Your task to perform on an android device: Open battery settings Image 0: 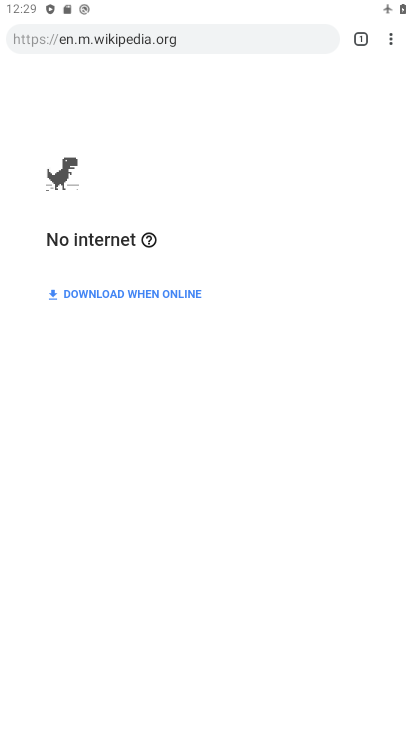
Step 0: press home button
Your task to perform on an android device: Open battery settings Image 1: 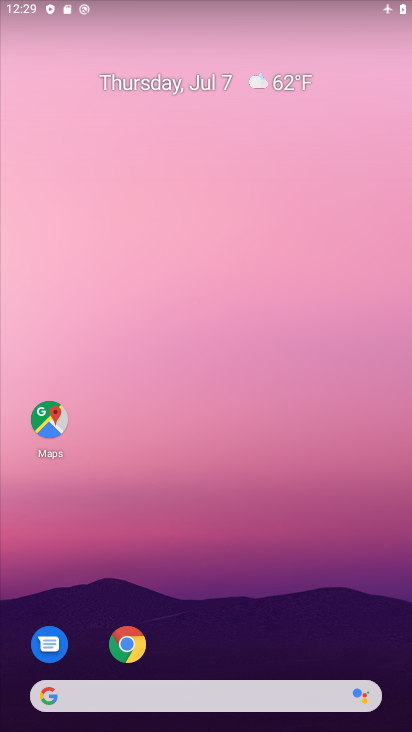
Step 1: drag from (269, 632) to (211, 114)
Your task to perform on an android device: Open battery settings Image 2: 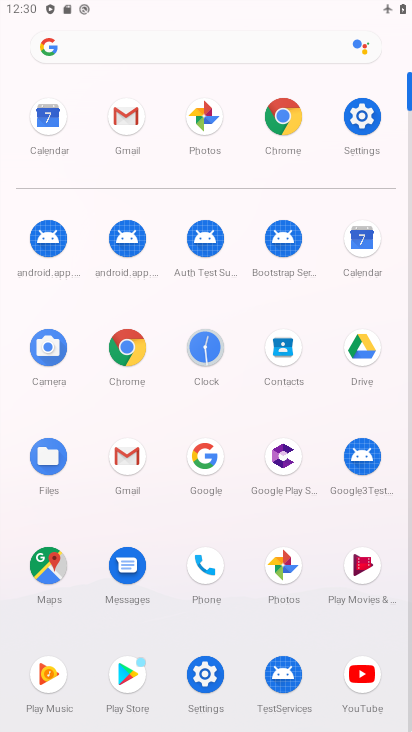
Step 2: click (198, 683)
Your task to perform on an android device: Open battery settings Image 3: 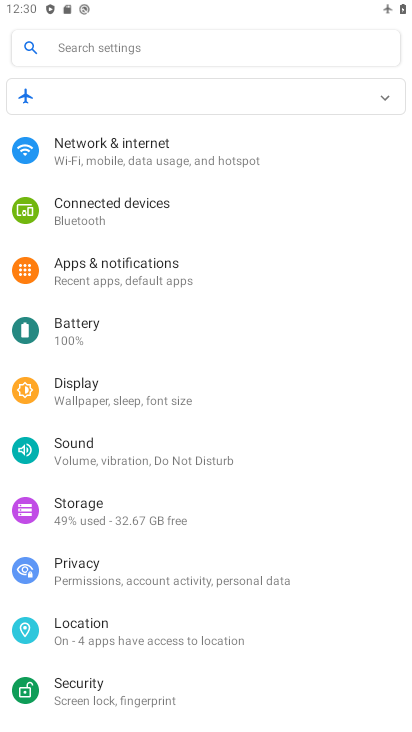
Step 3: click (157, 336)
Your task to perform on an android device: Open battery settings Image 4: 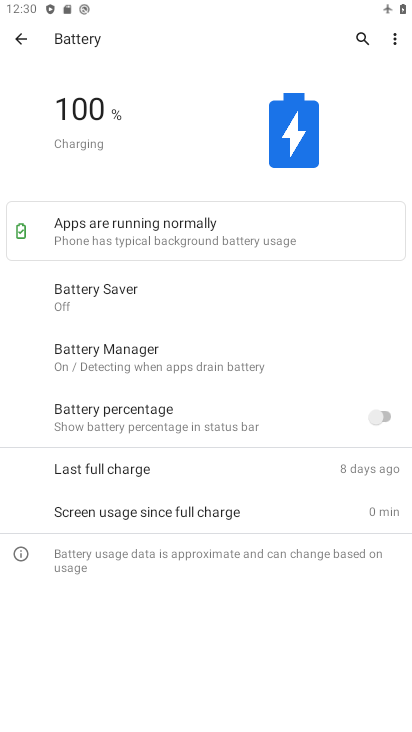
Step 4: task complete